Your task to perform on an android device: Install the Uber app Image 0: 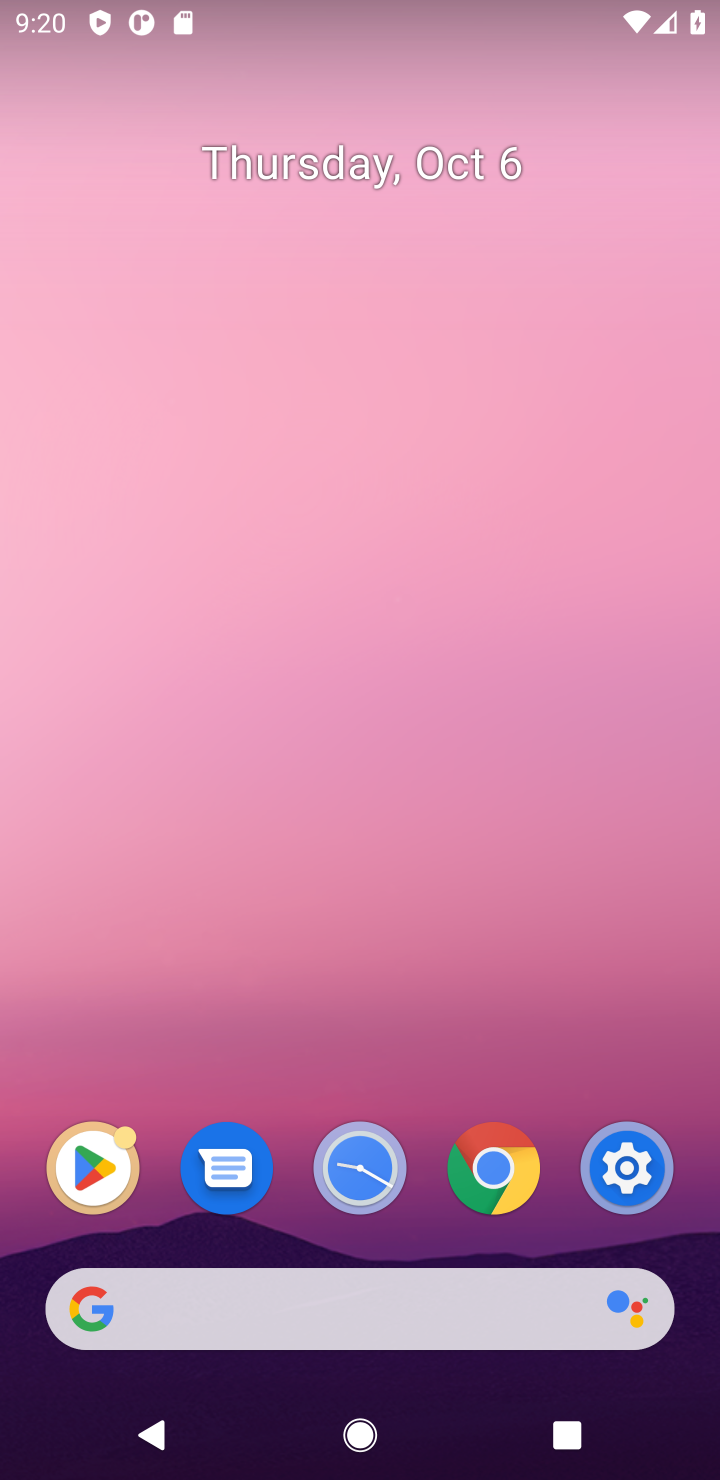
Step 0: click (87, 1171)
Your task to perform on an android device: Install the Uber app Image 1: 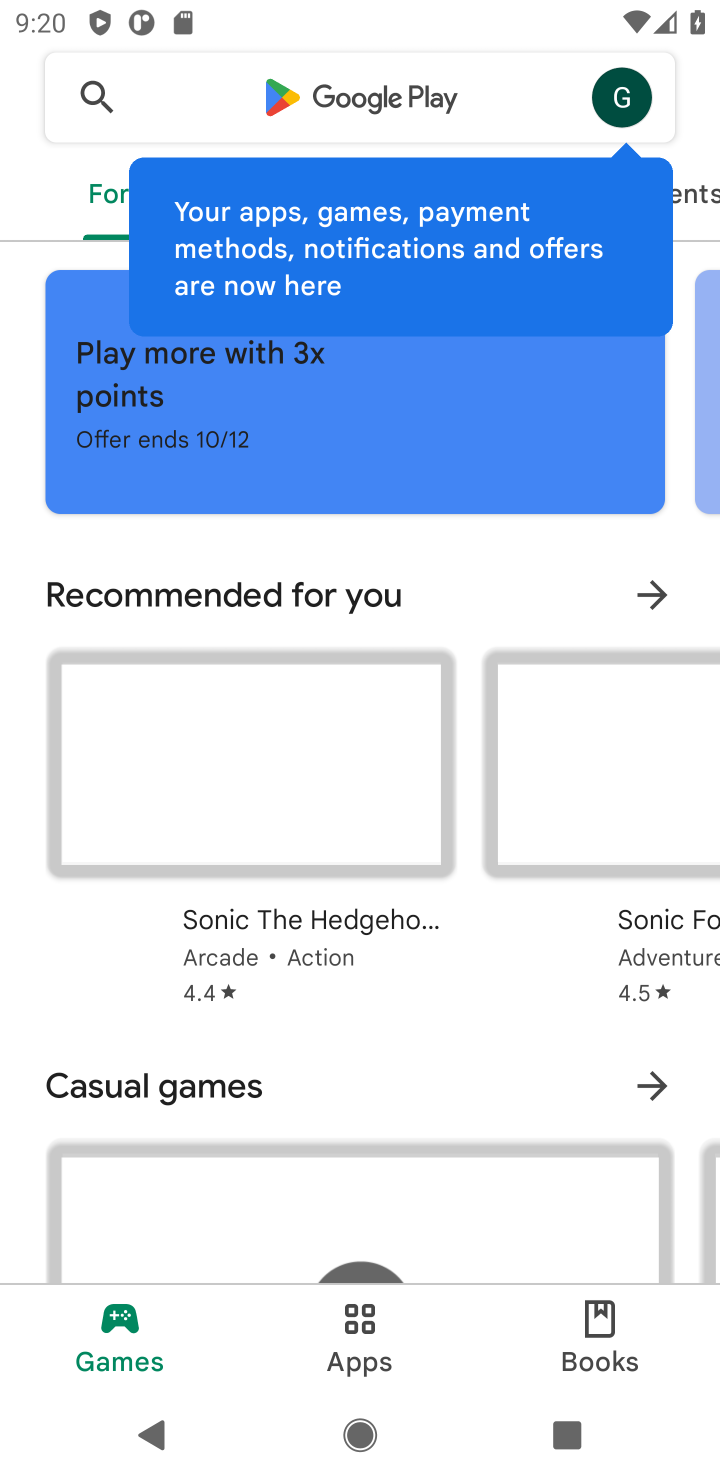
Step 1: click (298, 101)
Your task to perform on an android device: Install the Uber app Image 2: 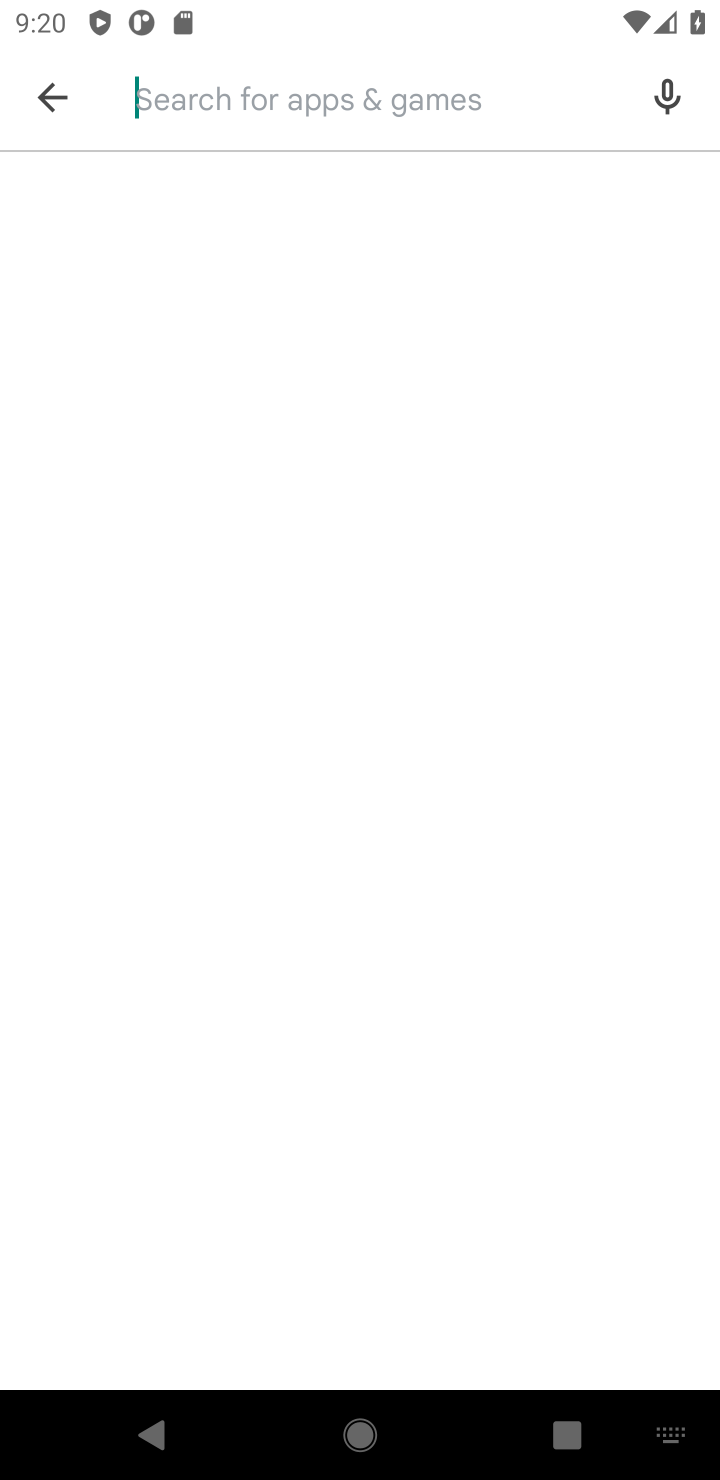
Step 2: type "uber app"
Your task to perform on an android device: Install the Uber app Image 3: 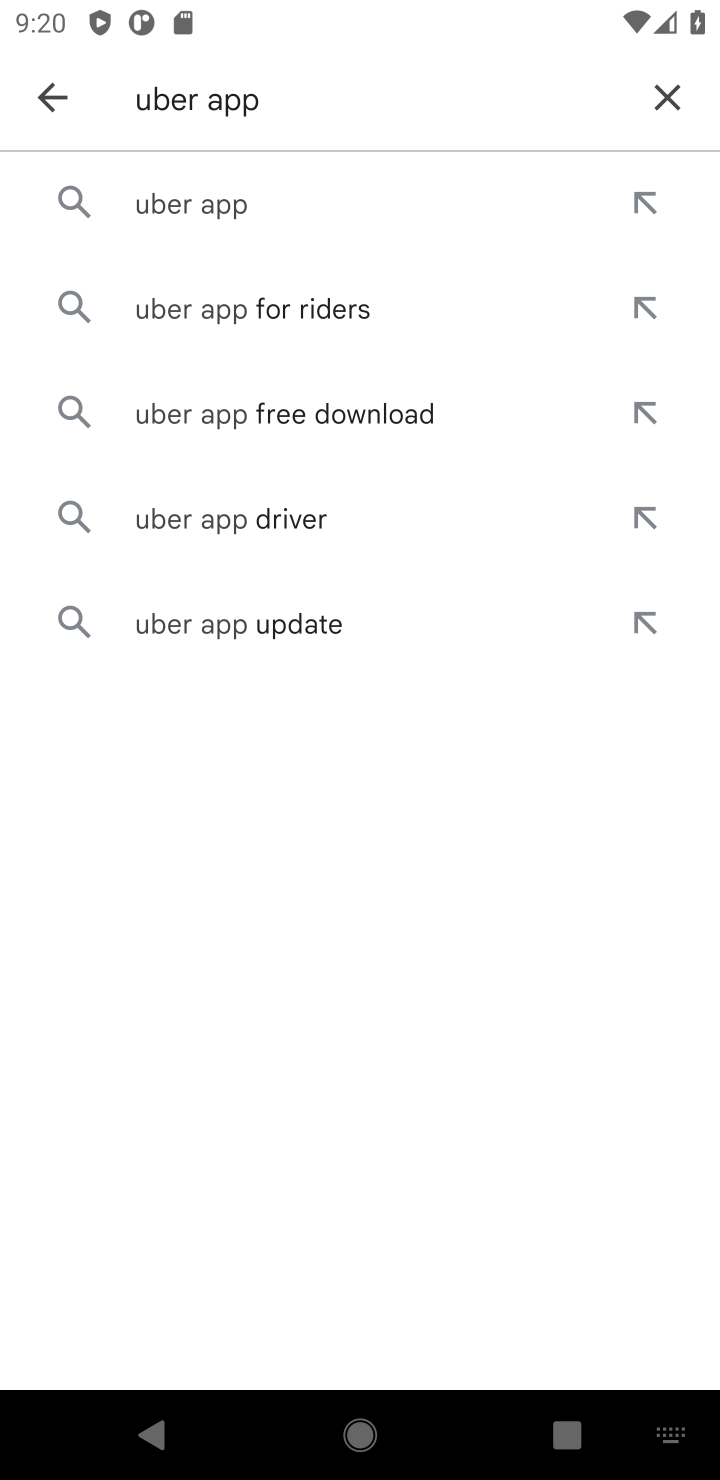
Step 3: click (208, 206)
Your task to perform on an android device: Install the Uber app Image 4: 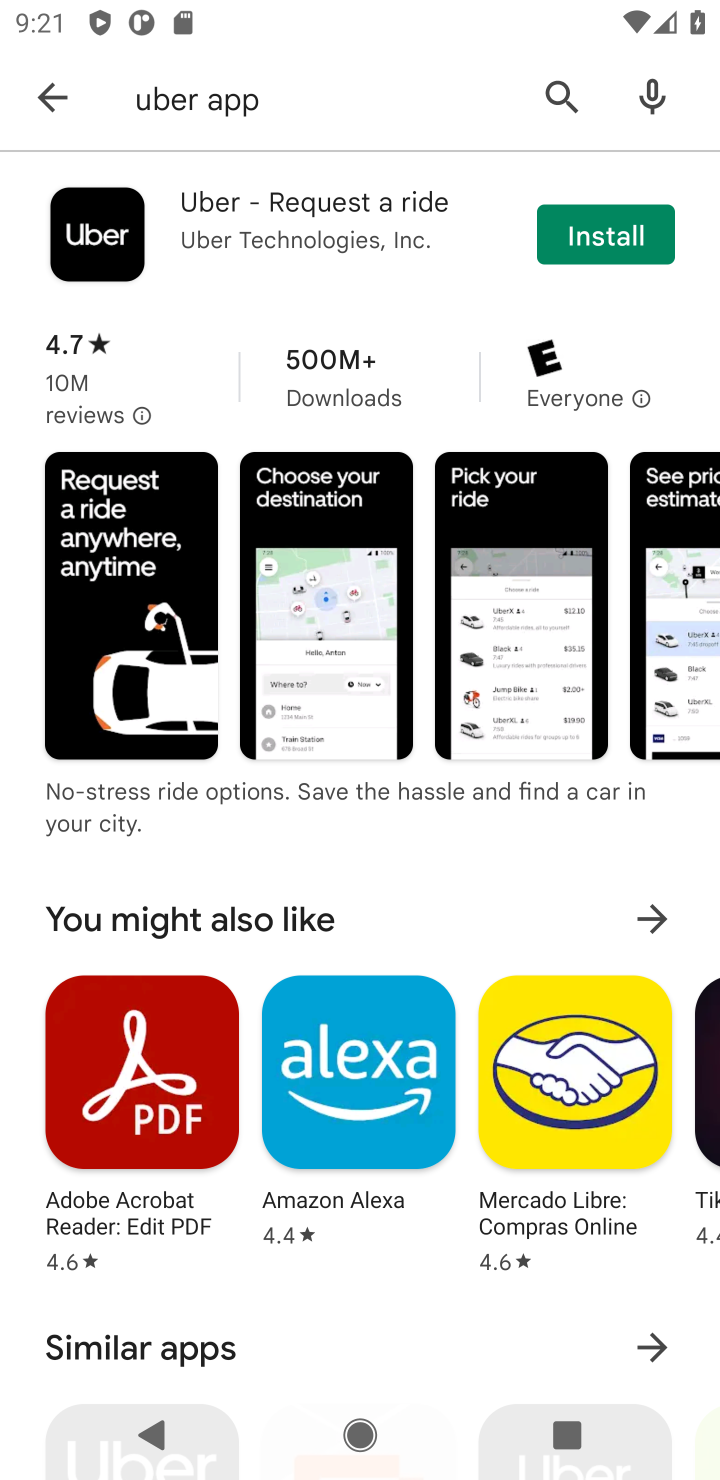
Step 4: click (591, 247)
Your task to perform on an android device: Install the Uber app Image 5: 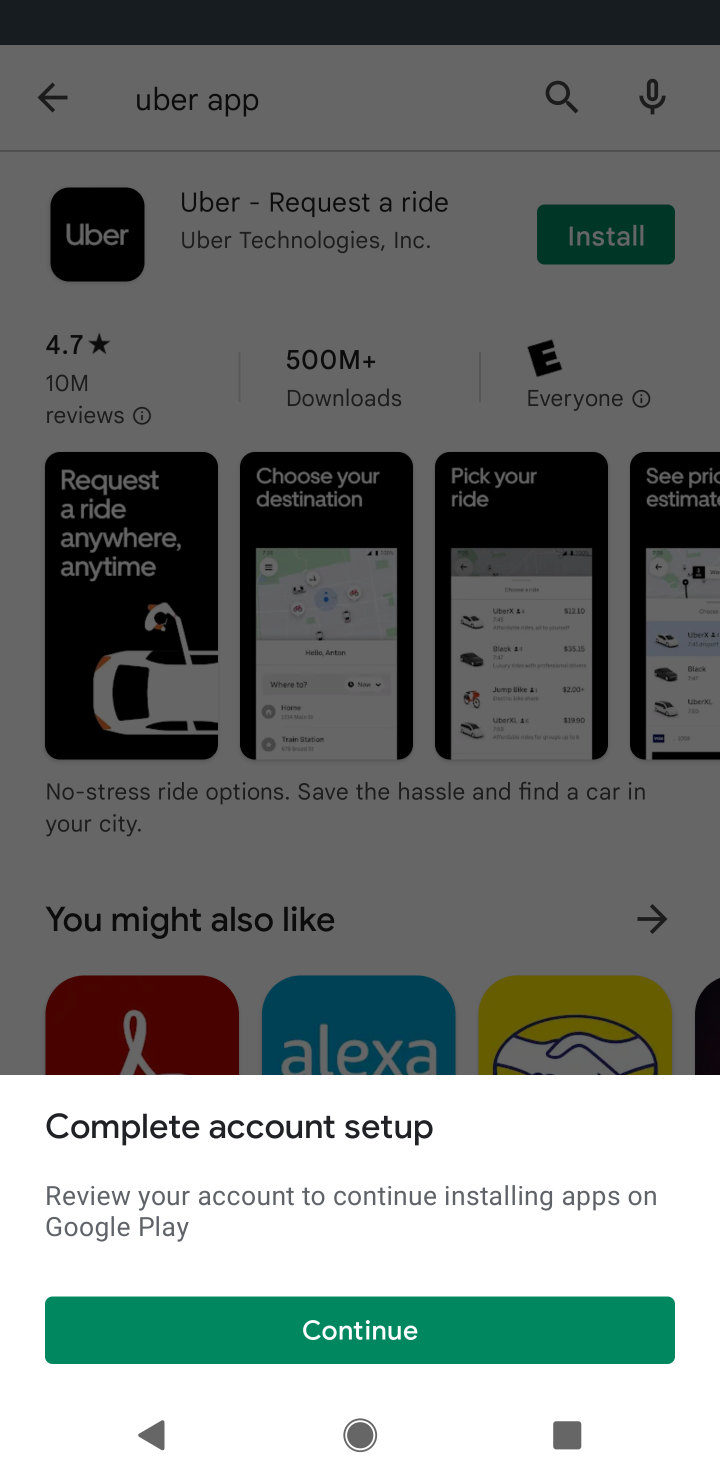
Step 5: click (269, 1348)
Your task to perform on an android device: Install the Uber app Image 6: 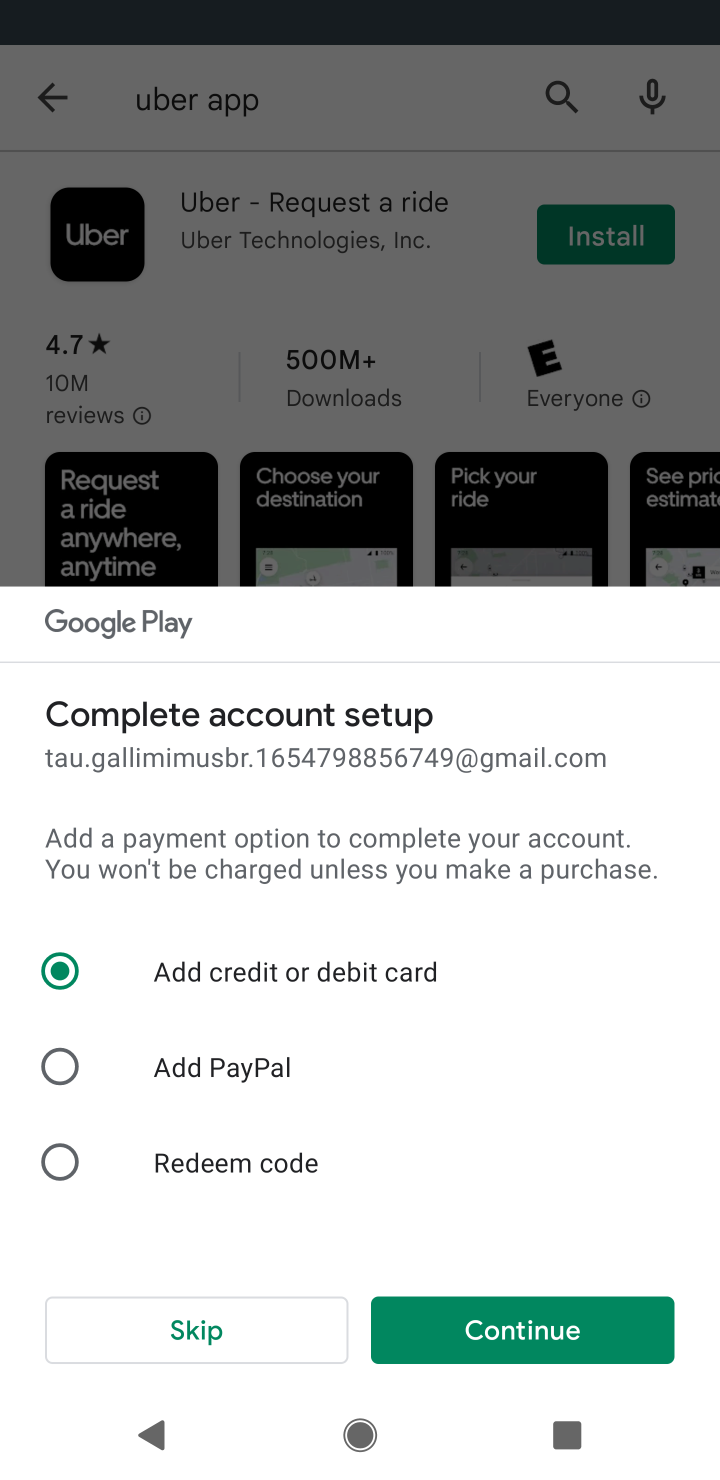
Step 6: click (236, 1333)
Your task to perform on an android device: Install the Uber app Image 7: 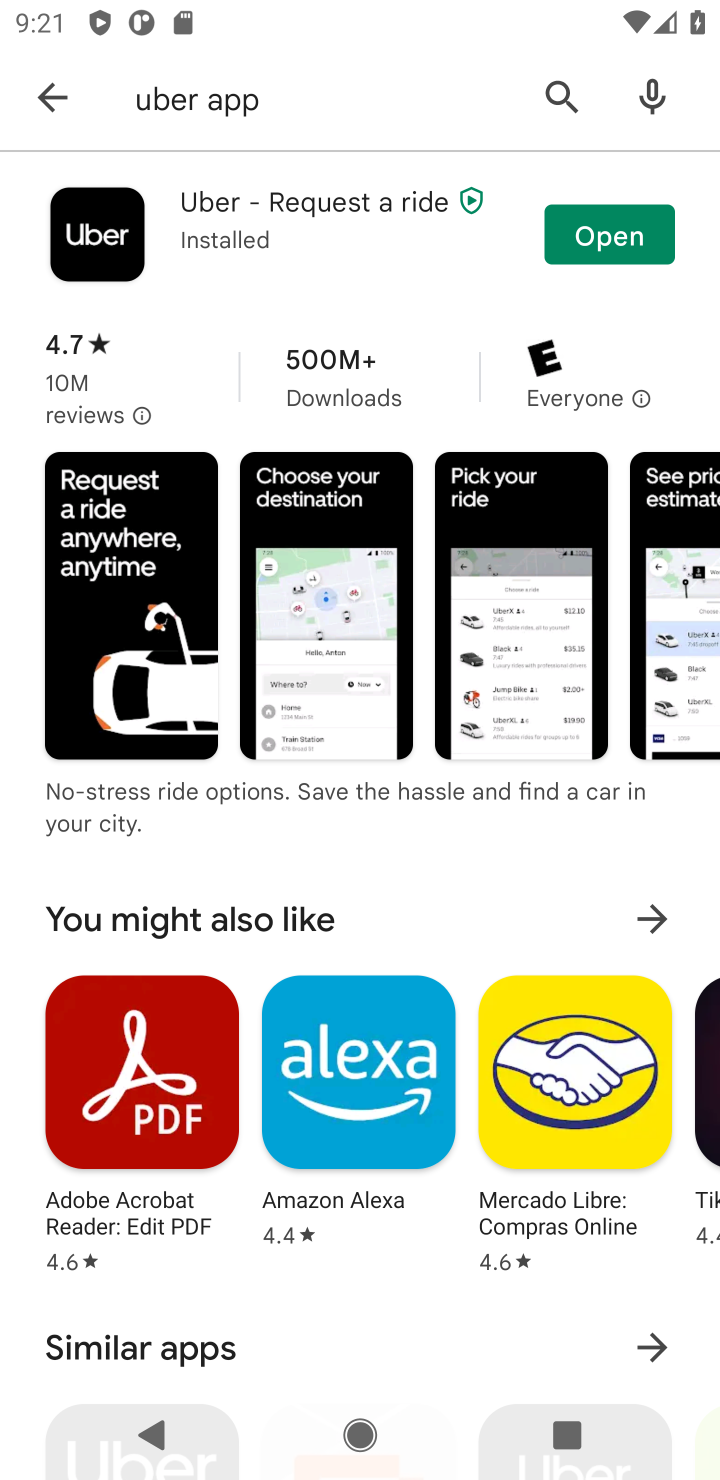
Step 7: task complete